Your task to perform on an android device: open sync settings in chrome Image 0: 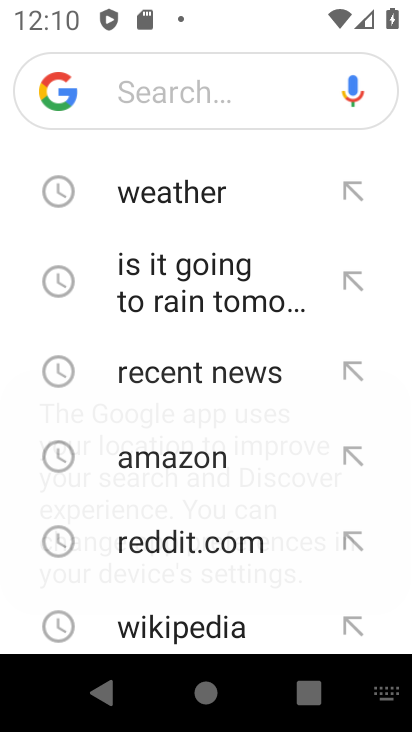
Step 0: press home button
Your task to perform on an android device: open sync settings in chrome Image 1: 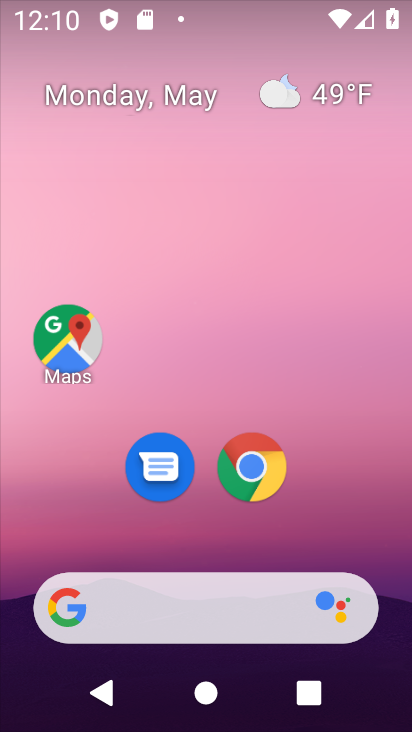
Step 1: drag from (324, 476) to (378, 151)
Your task to perform on an android device: open sync settings in chrome Image 2: 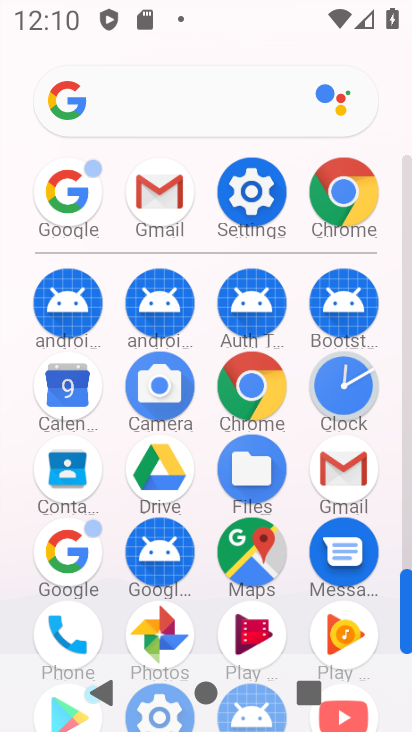
Step 2: click (252, 386)
Your task to perform on an android device: open sync settings in chrome Image 3: 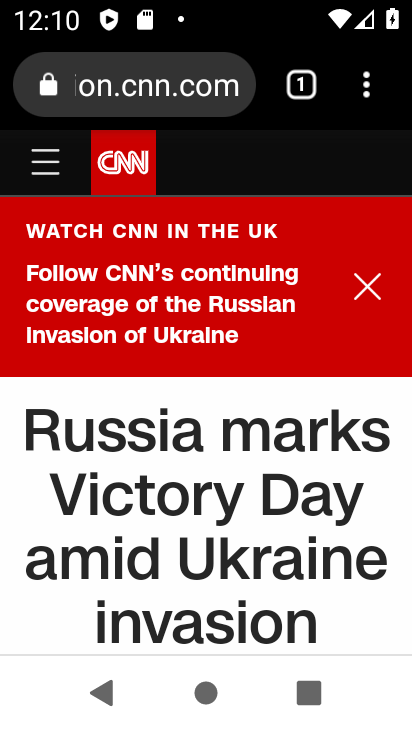
Step 3: drag from (379, 103) to (209, 529)
Your task to perform on an android device: open sync settings in chrome Image 4: 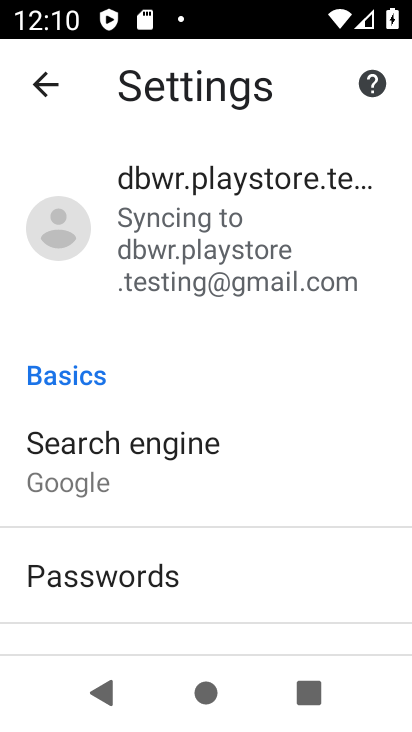
Step 4: drag from (221, 597) to (290, 275)
Your task to perform on an android device: open sync settings in chrome Image 5: 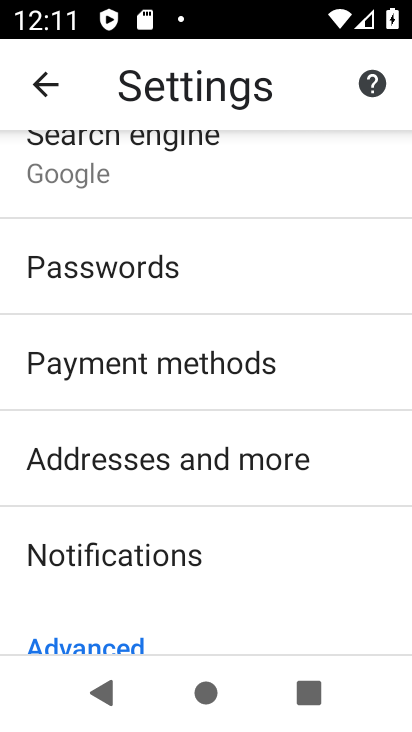
Step 5: drag from (319, 549) to (359, 249)
Your task to perform on an android device: open sync settings in chrome Image 6: 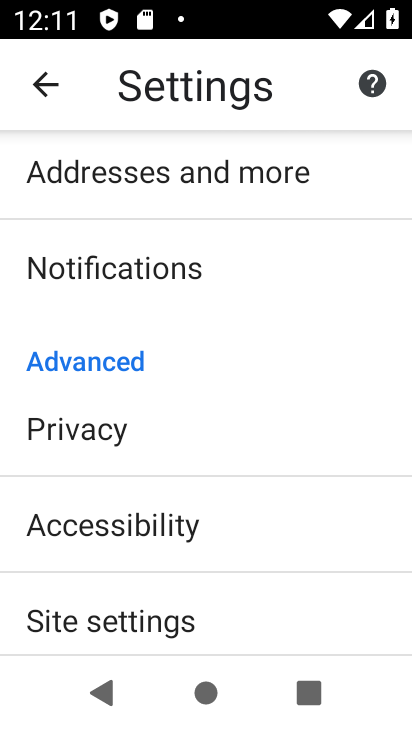
Step 6: click (239, 603)
Your task to perform on an android device: open sync settings in chrome Image 7: 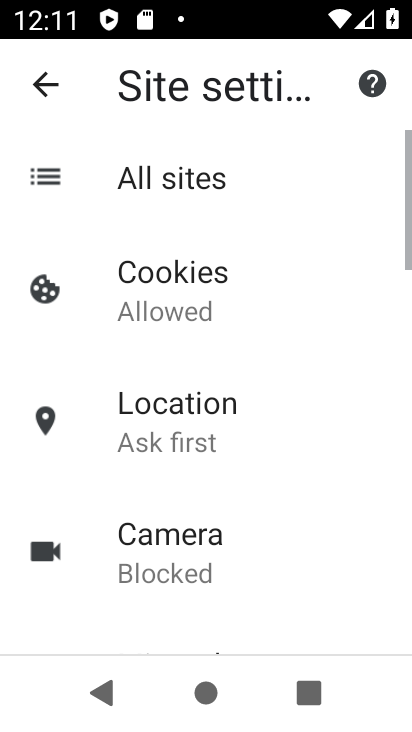
Step 7: drag from (280, 596) to (323, 204)
Your task to perform on an android device: open sync settings in chrome Image 8: 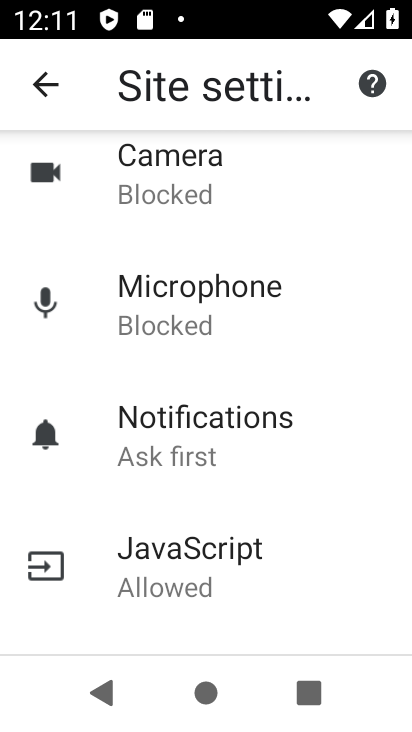
Step 8: drag from (281, 538) to (324, 218)
Your task to perform on an android device: open sync settings in chrome Image 9: 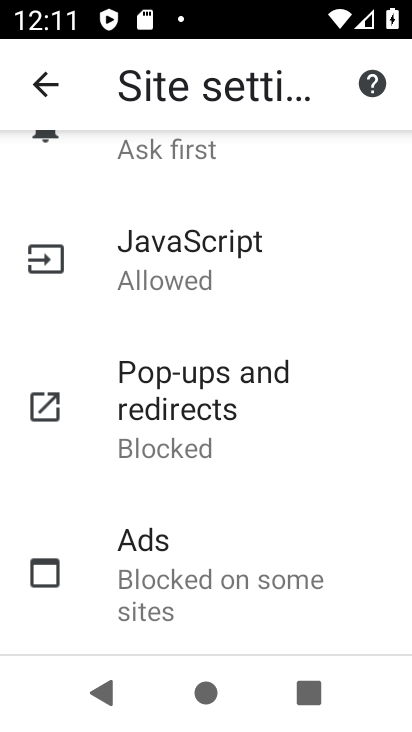
Step 9: drag from (285, 570) to (295, 341)
Your task to perform on an android device: open sync settings in chrome Image 10: 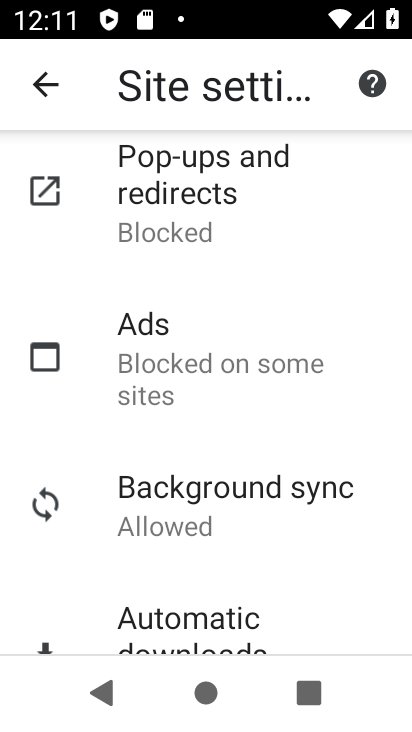
Step 10: click (264, 197)
Your task to perform on an android device: open sync settings in chrome Image 11: 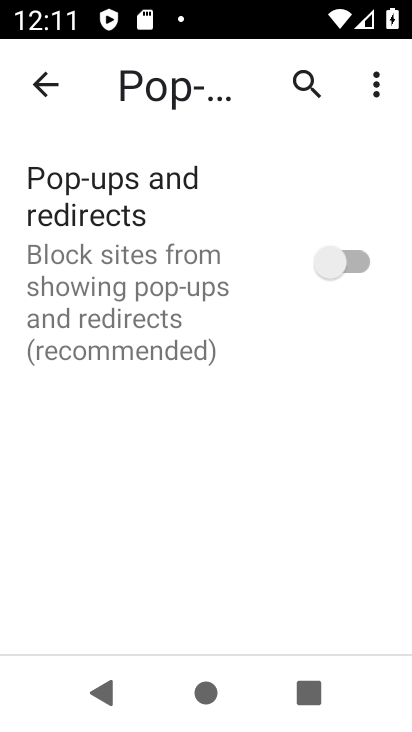
Step 11: task complete